Your task to perform on an android device: turn off priority inbox in the gmail app Image 0: 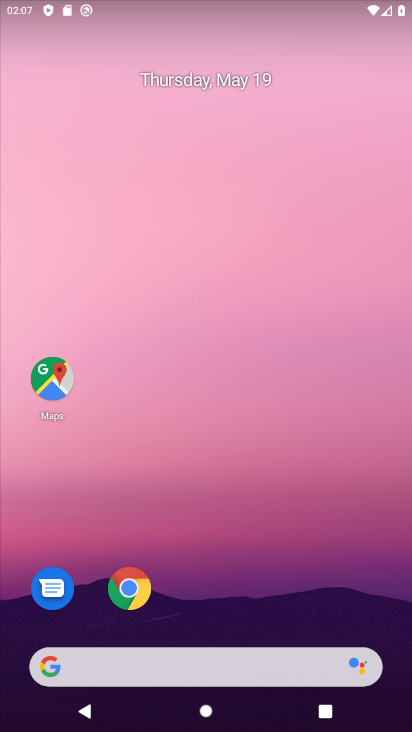
Step 0: drag from (252, 465) to (238, 83)
Your task to perform on an android device: turn off priority inbox in the gmail app Image 1: 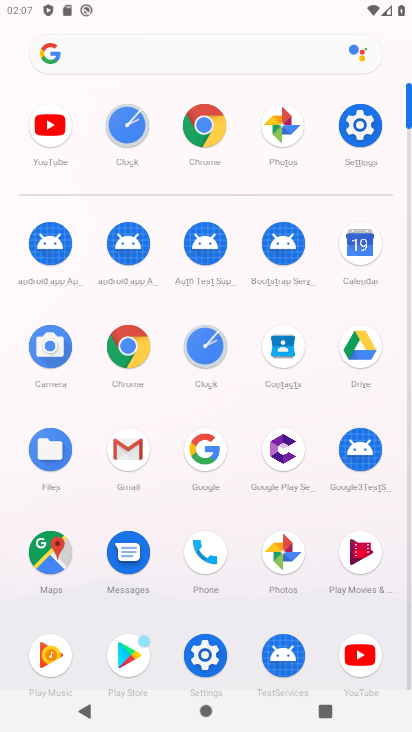
Step 1: click (130, 441)
Your task to perform on an android device: turn off priority inbox in the gmail app Image 2: 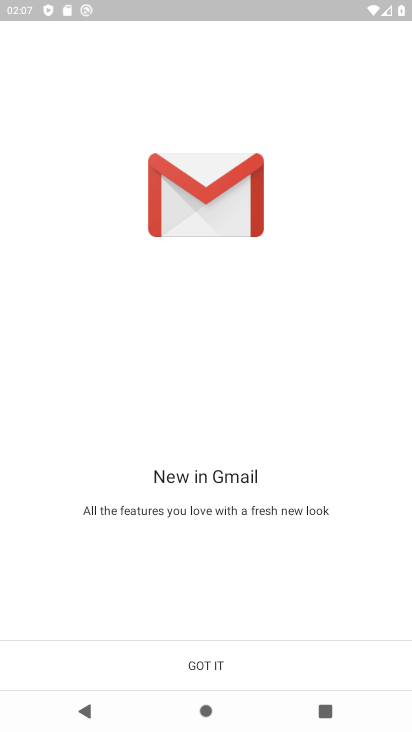
Step 2: click (209, 663)
Your task to perform on an android device: turn off priority inbox in the gmail app Image 3: 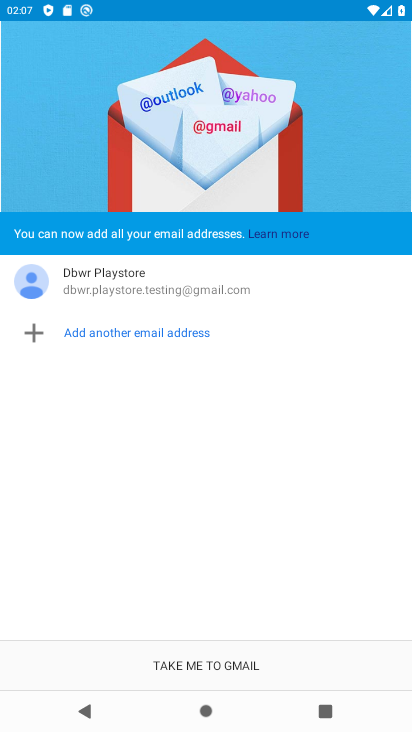
Step 3: click (202, 663)
Your task to perform on an android device: turn off priority inbox in the gmail app Image 4: 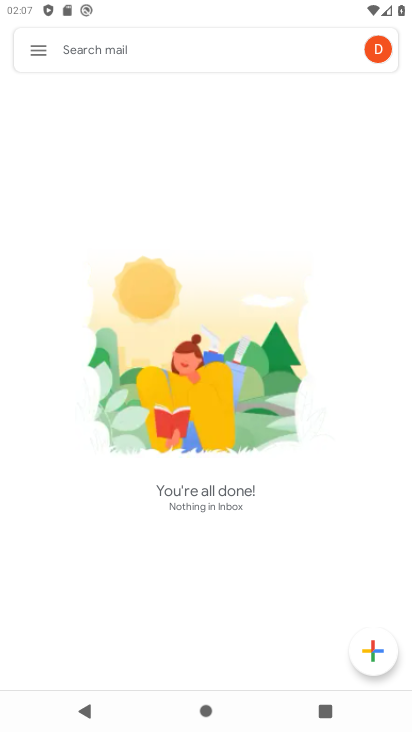
Step 4: click (38, 40)
Your task to perform on an android device: turn off priority inbox in the gmail app Image 5: 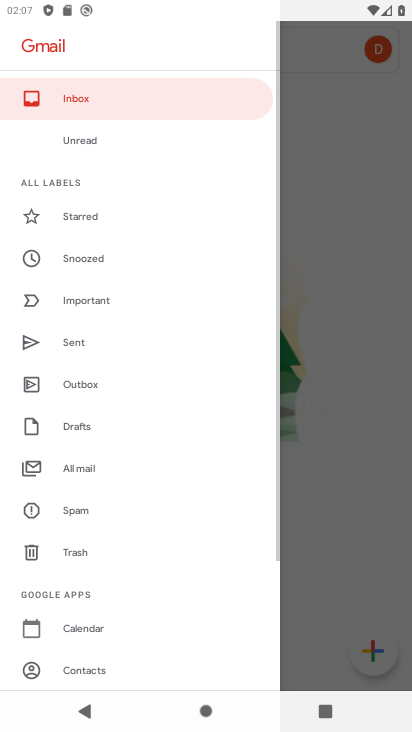
Step 5: drag from (107, 572) to (140, 165)
Your task to perform on an android device: turn off priority inbox in the gmail app Image 6: 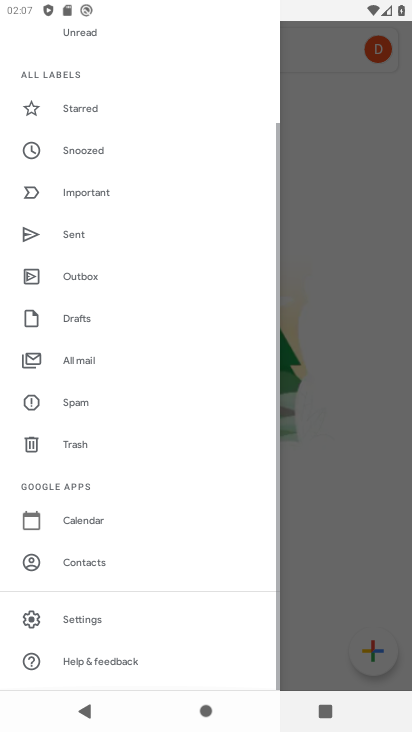
Step 6: click (49, 614)
Your task to perform on an android device: turn off priority inbox in the gmail app Image 7: 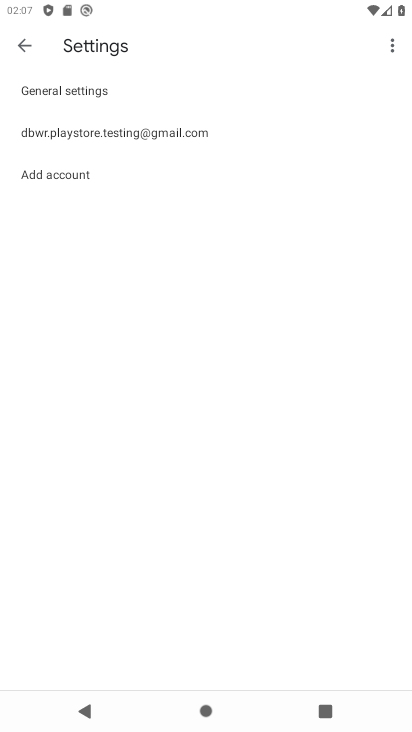
Step 7: click (70, 131)
Your task to perform on an android device: turn off priority inbox in the gmail app Image 8: 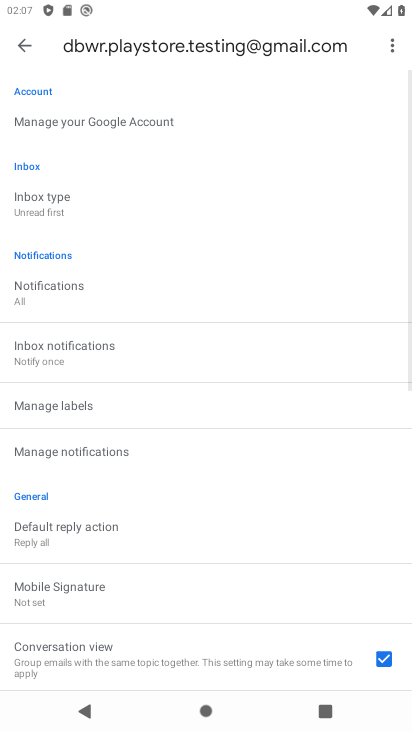
Step 8: click (52, 203)
Your task to perform on an android device: turn off priority inbox in the gmail app Image 9: 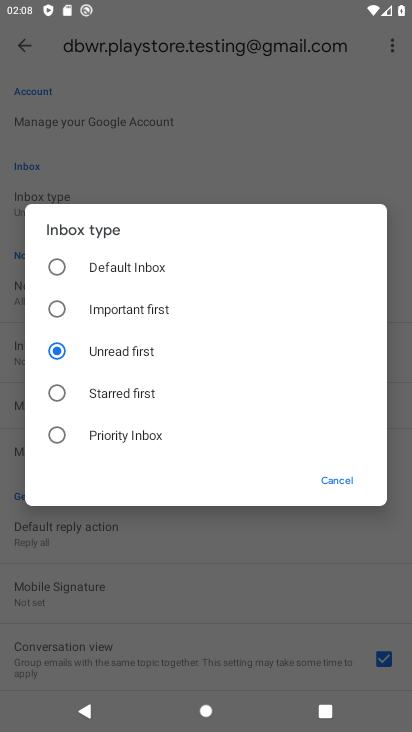
Step 9: task complete